Your task to perform on an android device: Is it going to rain today? Image 0: 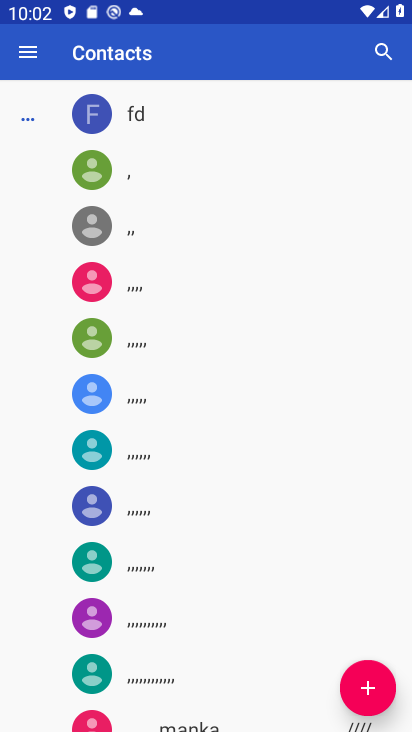
Step 0: press home button
Your task to perform on an android device: Is it going to rain today? Image 1: 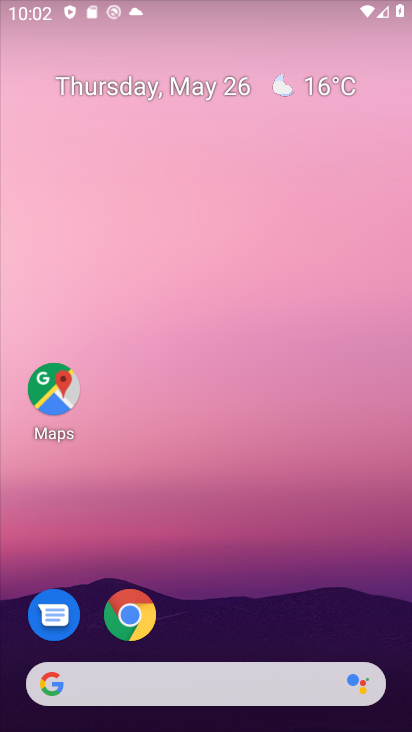
Step 1: drag from (243, 694) to (238, 249)
Your task to perform on an android device: Is it going to rain today? Image 2: 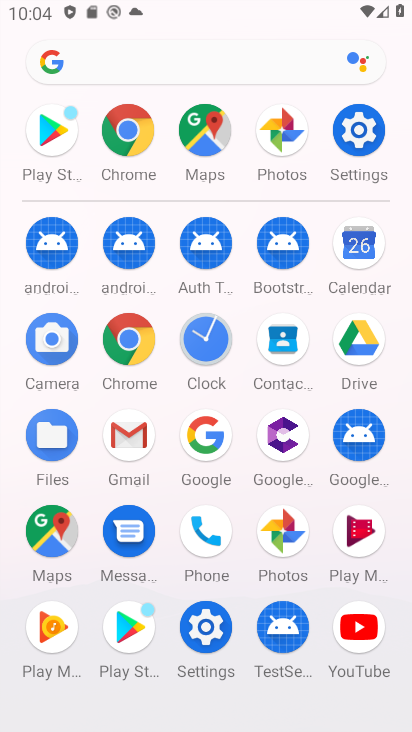
Step 2: click (262, 57)
Your task to perform on an android device: Is it going to rain today? Image 3: 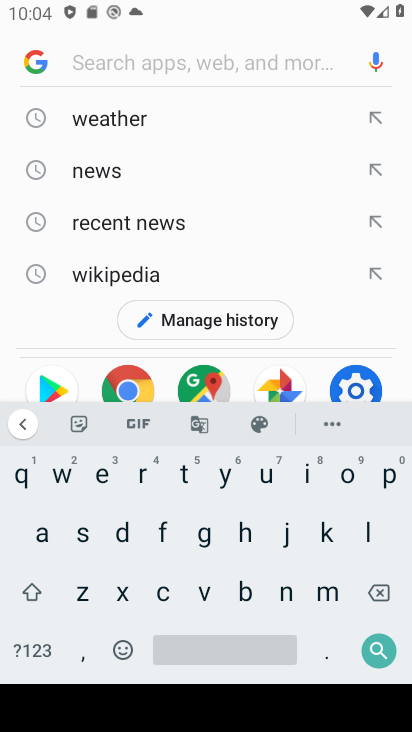
Step 3: click (140, 118)
Your task to perform on an android device: Is it going to rain today? Image 4: 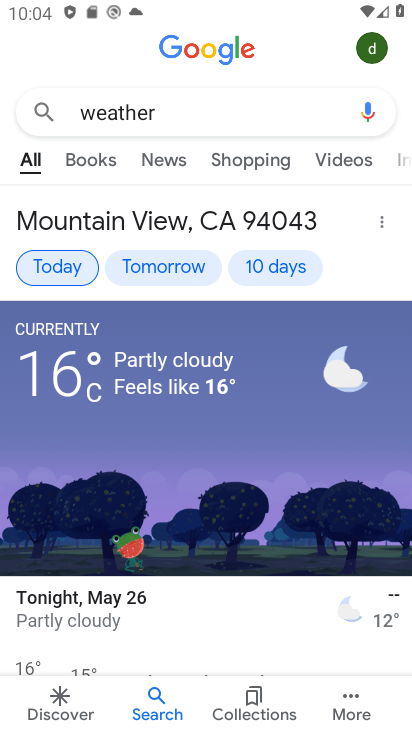
Step 4: task complete